Your task to perform on an android device: turn off airplane mode Image 0: 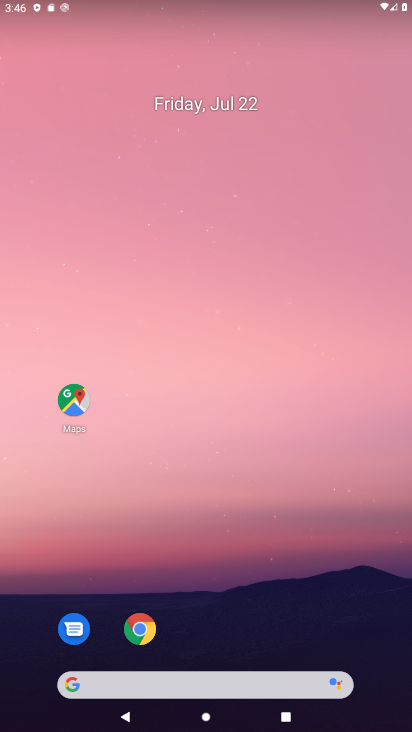
Step 0: drag from (297, 613) to (280, 110)
Your task to perform on an android device: turn off airplane mode Image 1: 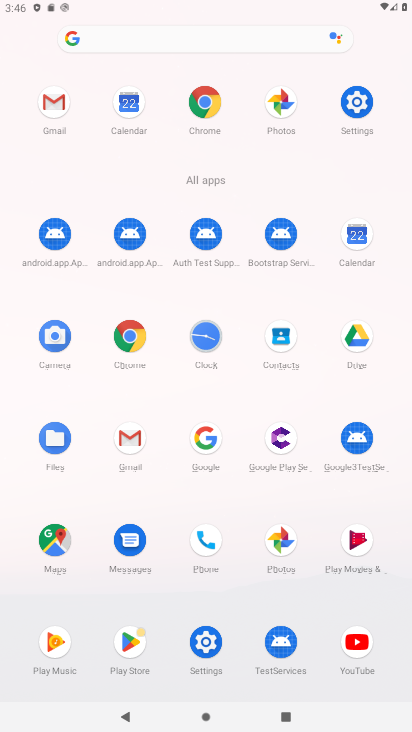
Step 1: click (361, 98)
Your task to perform on an android device: turn off airplane mode Image 2: 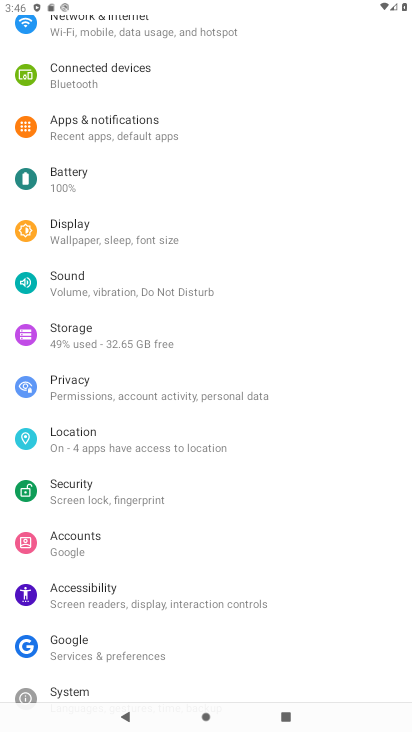
Step 2: drag from (149, 97) to (134, 510)
Your task to perform on an android device: turn off airplane mode Image 3: 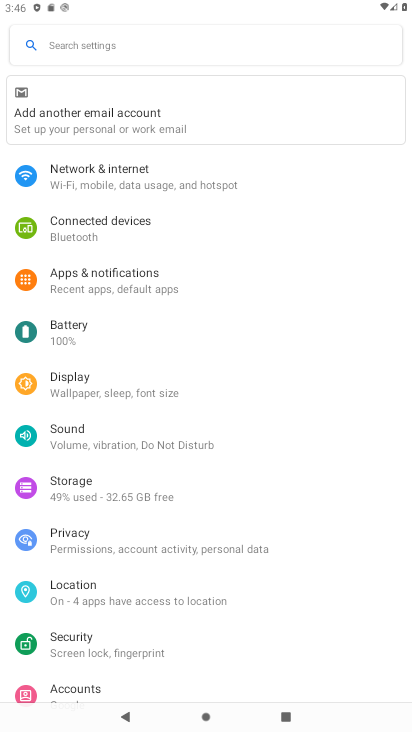
Step 3: click (143, 186)
Your task to perform on an android device: turn off airplane mode Image 4: 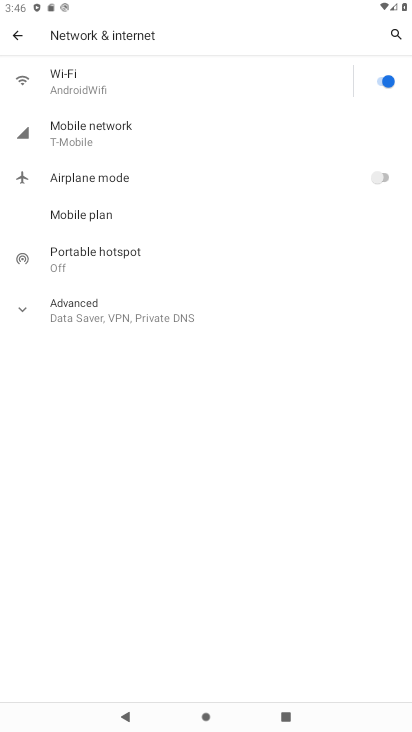
Step 4: task complete